Your task to perform on an android device: turn off improve location accuracy Image 0: 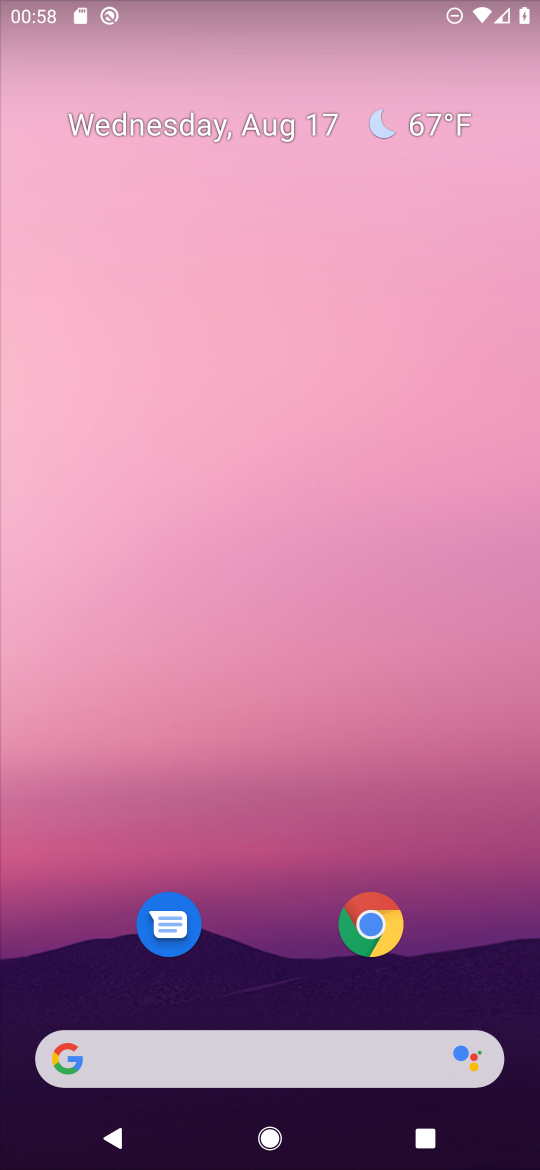
Step 0: drag from (264, 959) to (290, 58)
Your task to perform on an android device: turn off improve location accuracy Image 1: 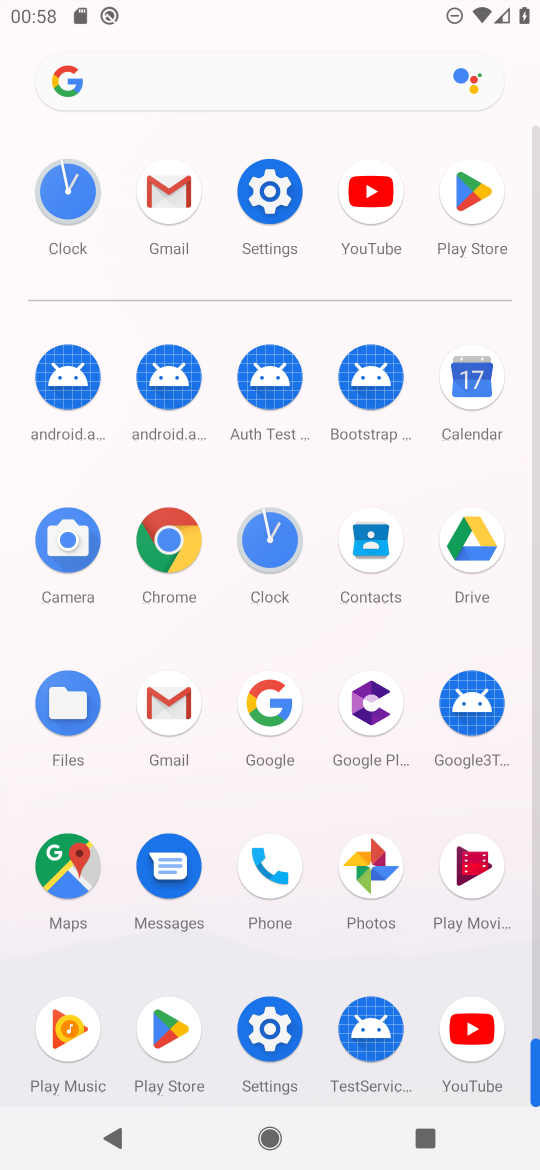
Step 1: click (285, 178)
Your task to perform on an android device: turn off improve location accuracy Image 2: 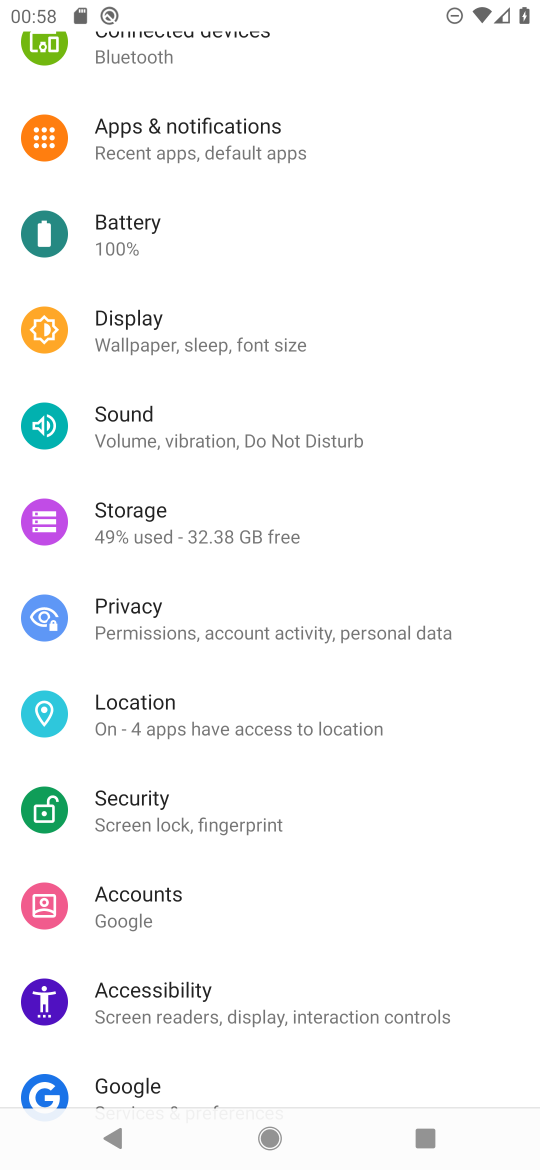
Step 2: click (71, 723)
Your task to perform on an android device: turn off improve location accuracy Image 3: 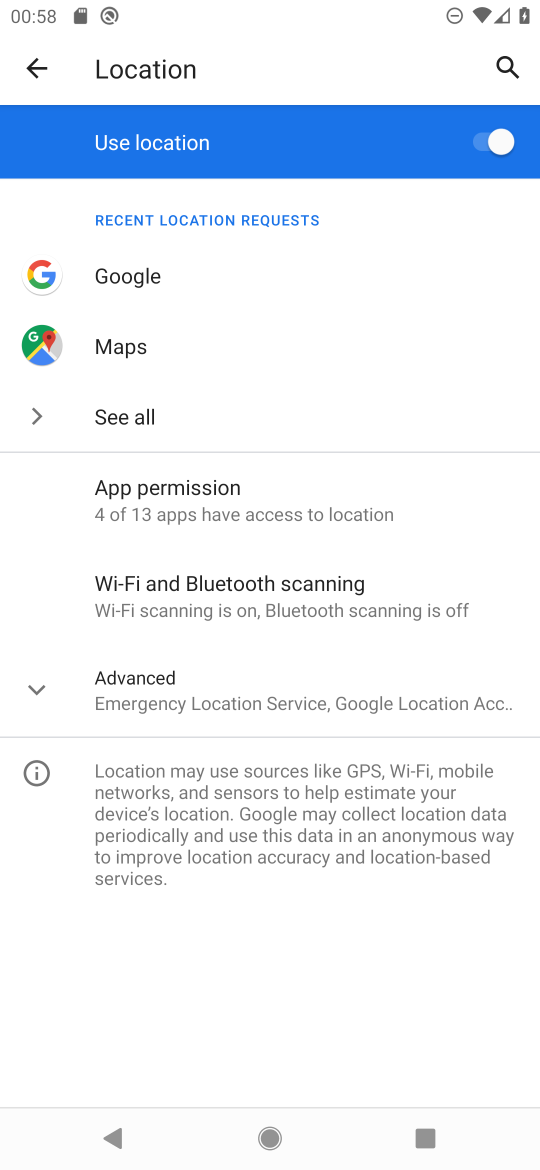
Step 3: click (279, 692)
Your task to perform on an android device: turn off improve location accuracy Image 4: 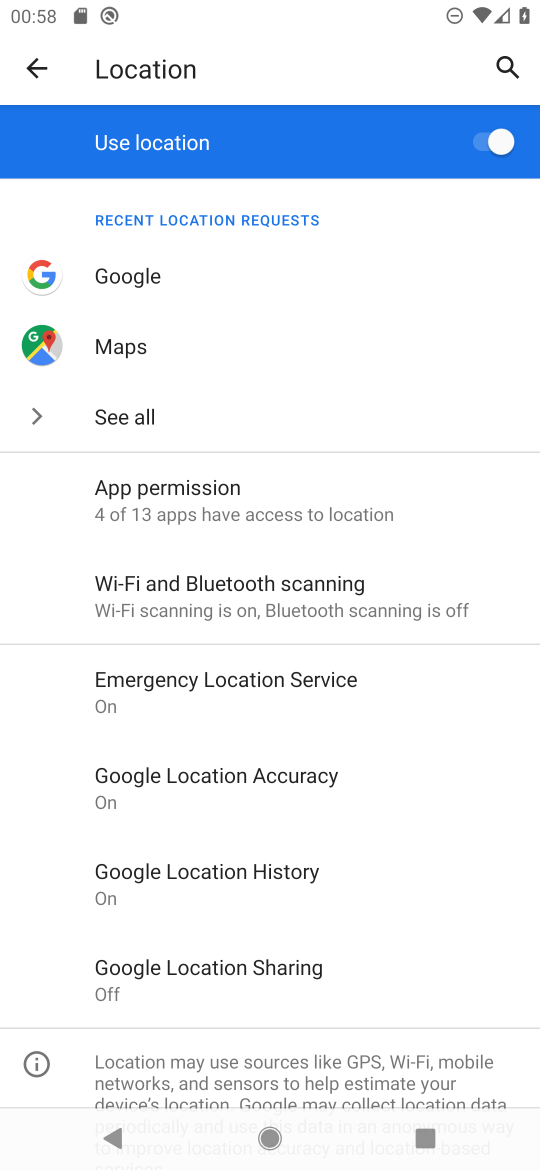
Step 4: click (302, 798)
Your task to perform on an android device: turn off improve location accuracy Image 5: 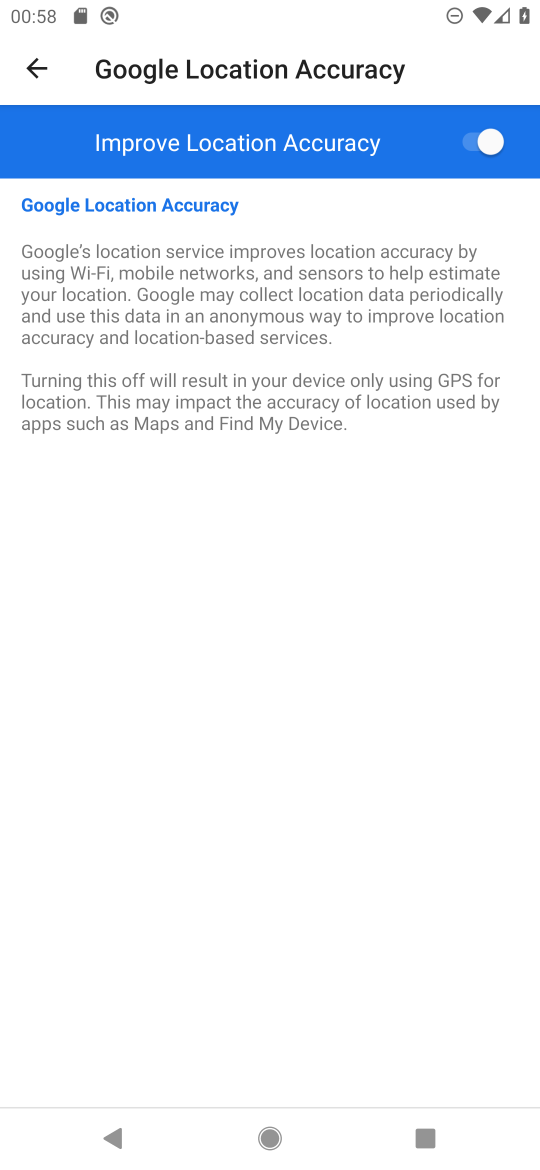
Step 5: click (478, 146)
Your task to perform on an android device: turn off improve location accuracy Image 6: 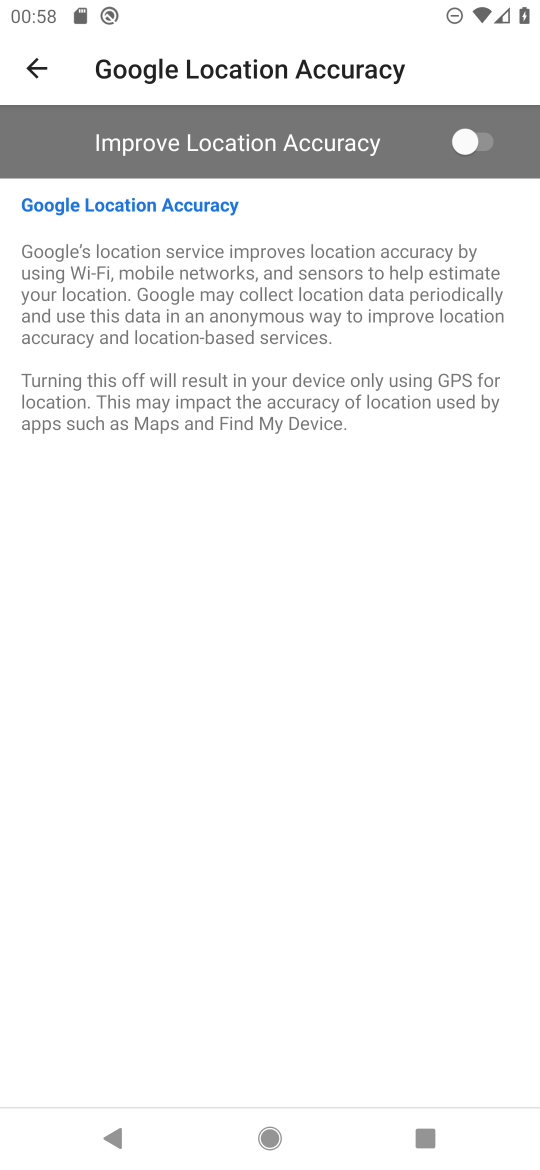
Step 6: task complete